Your task to perform on an android device: turn off notifications settings in the gmail app Image 0: 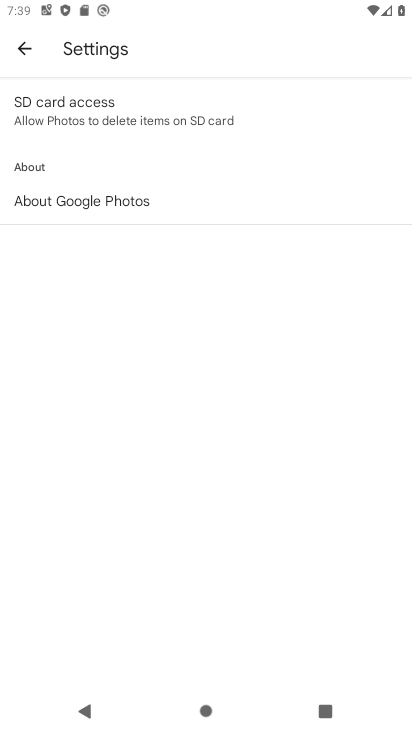
Step 0: drag from (361, 619) to (284, 188)
Your task to perform on an android device: turn off notifications settings in the gmail app Image 1: 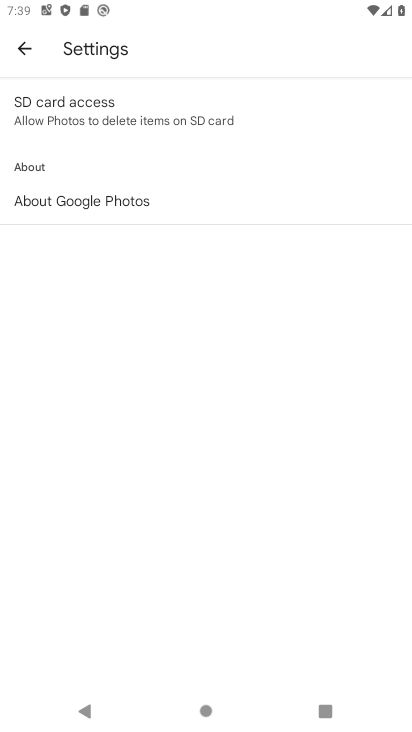
Step 1: press home button
Your task to perform on an android device: turn off notifications settings in the gmail app Image 2: 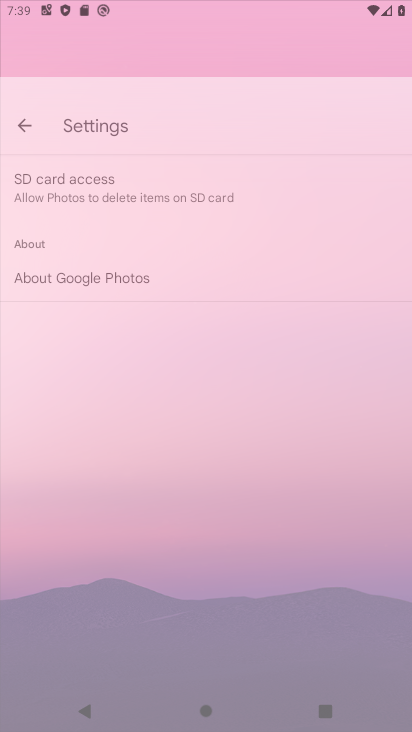
Step 2: drag from (383, 644) to (261, 0)
Your task to perform on an android device: turn off notifications settings in the gmail app Image 3: 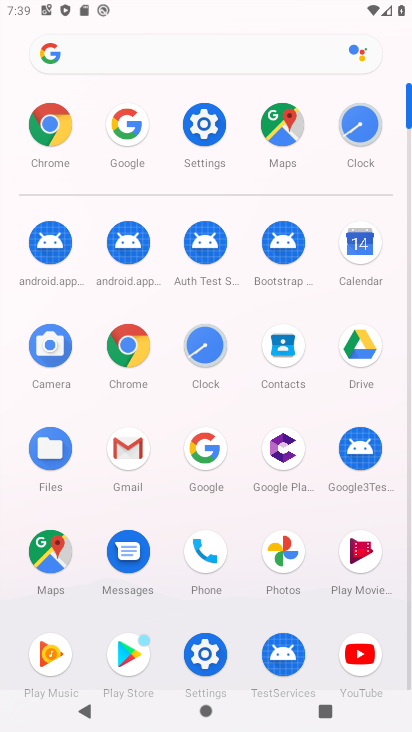
Step 3: click (130, 450)
Your task to perform on an android device: turn off notifications settings in the gmail app Image 4: 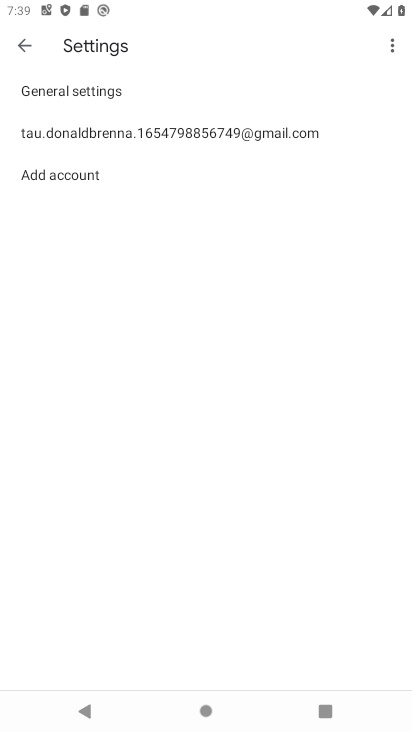
Step 4: click (240, 132)
Your task to perform on an android device: turn off notifications settings in the gmail app Image 5: 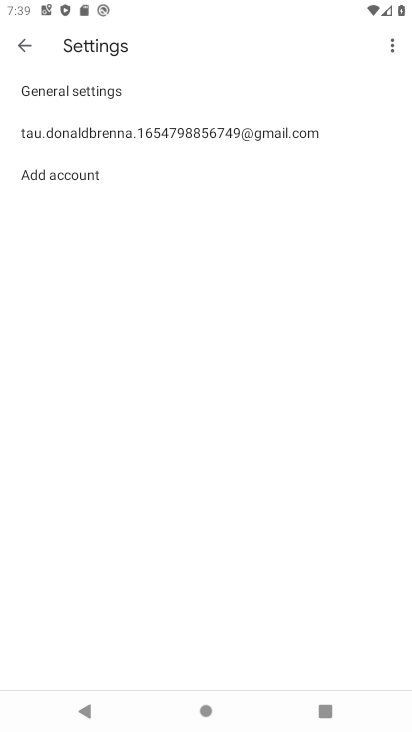
Step 5: drag from (409, 674) to (240, 132)
Your task to perform on an android device: turn off notifications settings in the gmail app Image 6: 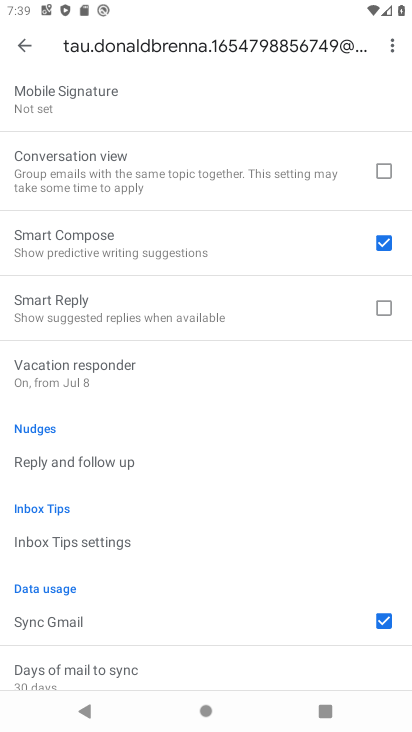
Step 6: drag from (151, 180) to (142, 716)
Your task to perform on an android device: turn off notifications settings in the gmail app Image 7: 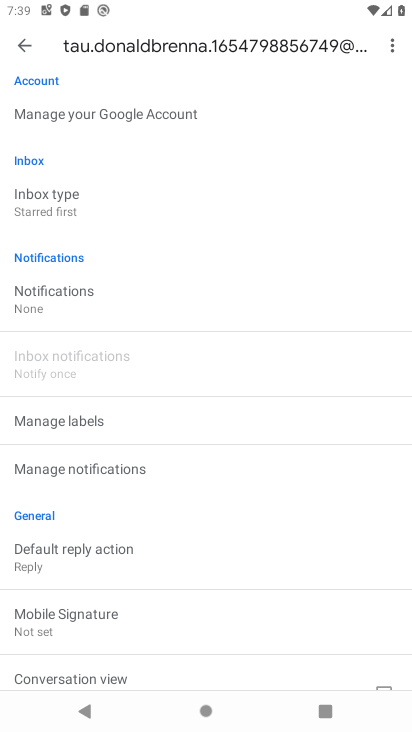
Step 7: click (90, 318)
Your task to perform on an android device: turn off notifications settings in the gmail app Image 8: 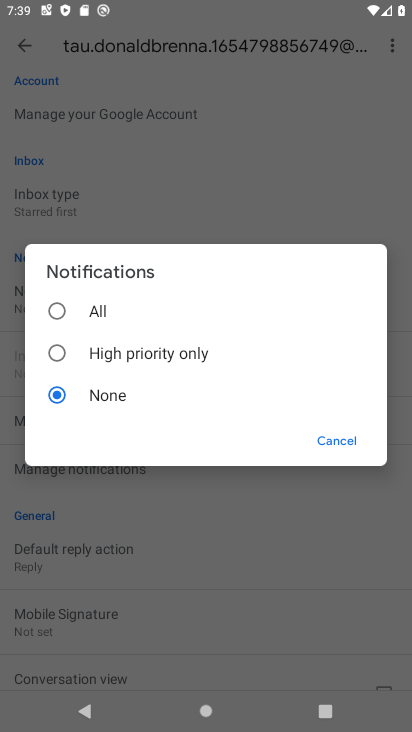
Step 8: task complete